Your task to perform on an android device: Open the calendar and show me this week's events Image 0: 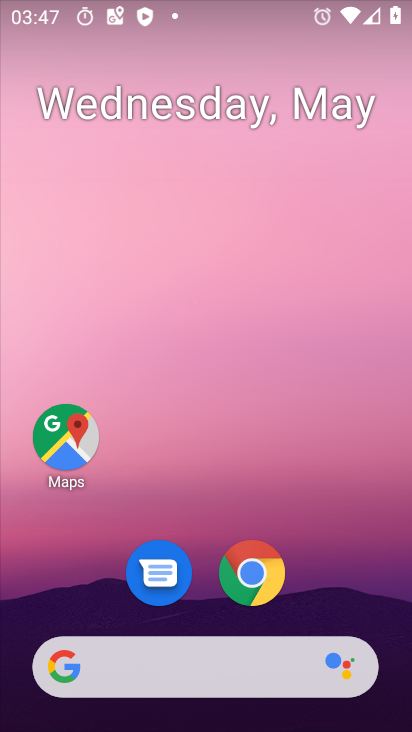
Step 0: drag from (198, 720) to (192, 74)
Your task to perform on an android device: Open the calendar and show me this week's events Image 1: 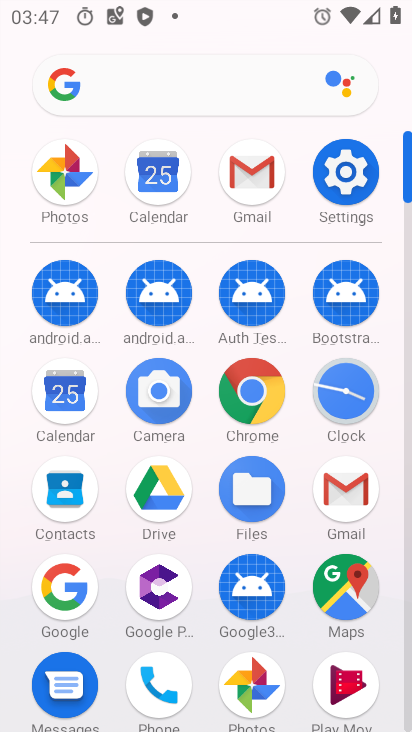
Step 1: click (66, 393)
Your task to perform on an android device: Open the calendar and show me this week's events Image 2: 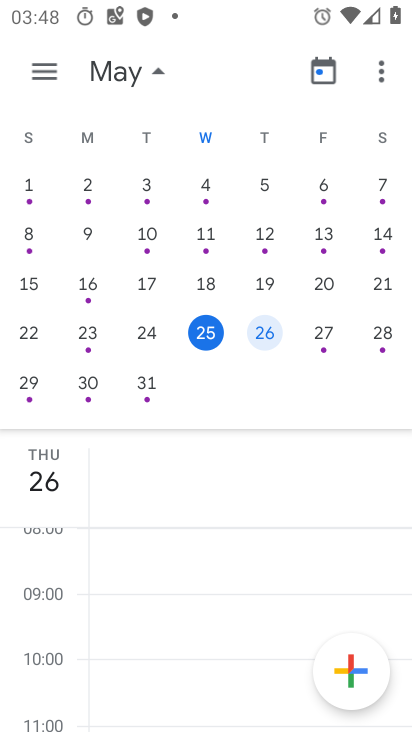
Step 2: click (43, 67)
Your task to perform on an android device: Open the calendar and show me this week's events Image 3: 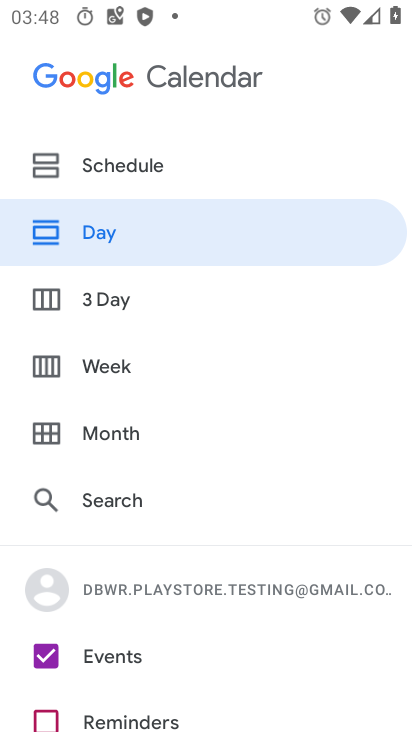
Step 3: click (106, 369)
Your task to perform on an android device: Open the calendar and show me this week's events Image 4: 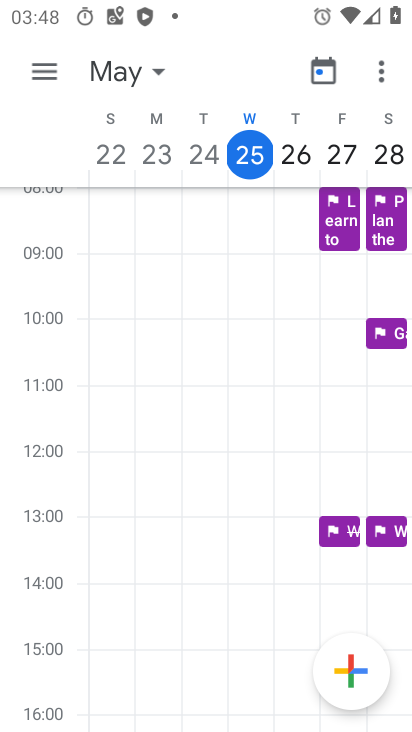
Step 4: task complete